Your task to perform on an android device: Open battery settings Image 0: 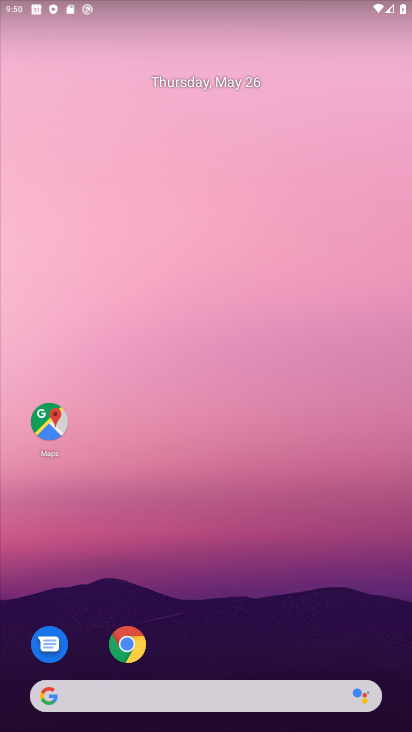
Step 0: drag from (321, 634) to (96, 75)
Your task to perform on an android device: Open battery settings Image 1: 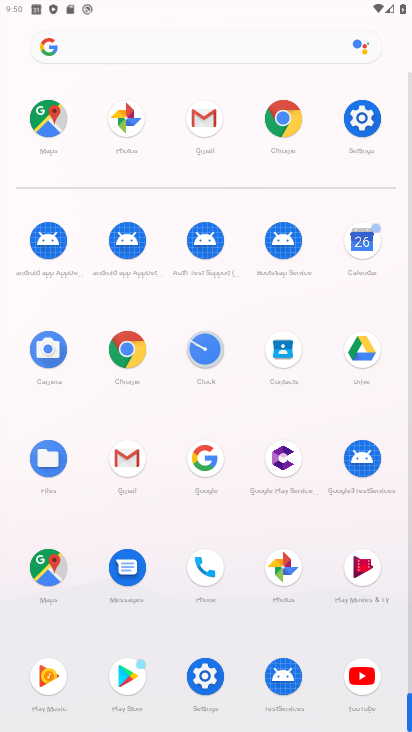
Step 1: click (353, 132)
Your task to perform on an android device: Open battery settings Image 2: 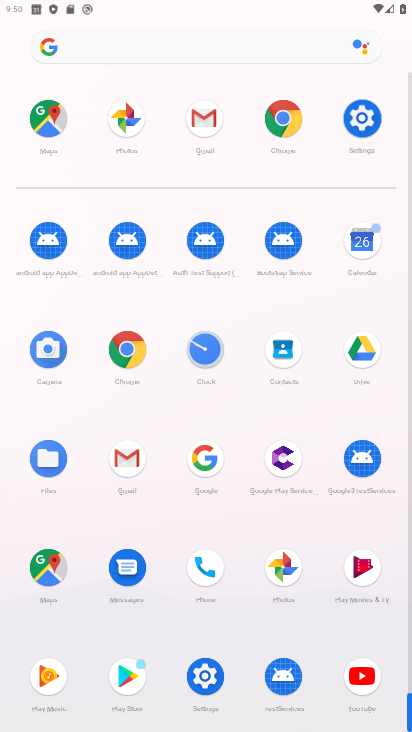
Step 2: click (353, 132)
Your task to perform on an android device: Open battery settings Image 3: 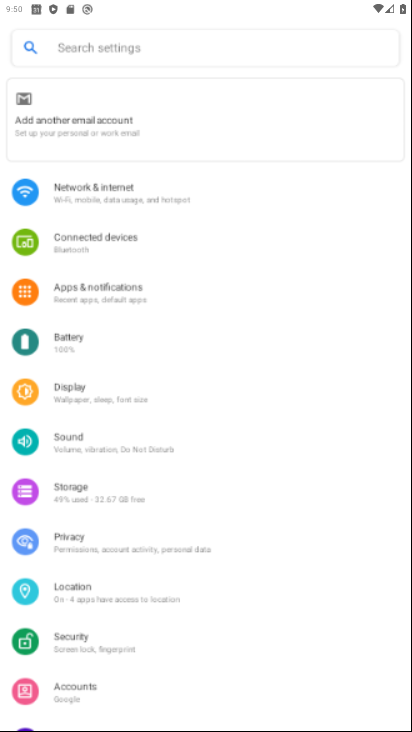
Step 3: click (355, 132)
Your task to perform on an android device: Open battery settings Image 4: 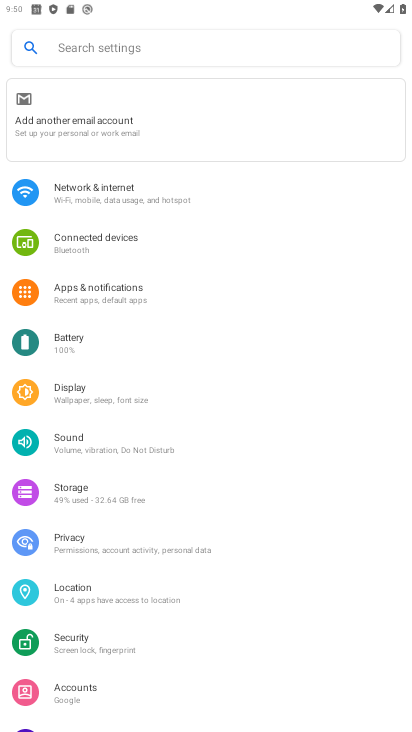
Step 4: click (56, 347)
Your task to perform on an android device: Open battery settings Image 5: 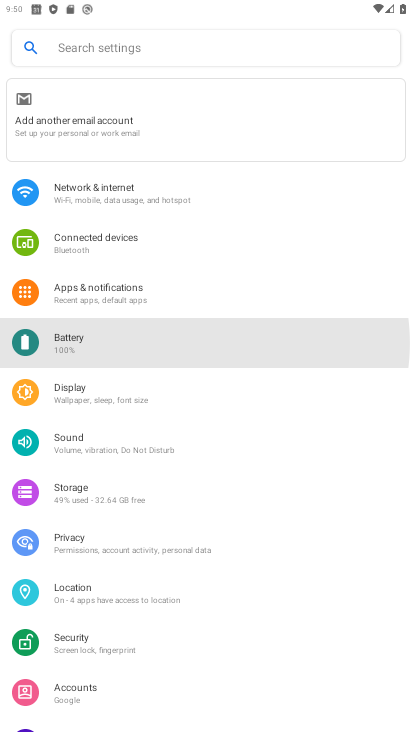
Step 5: click (56, 347)
Your task to perform on an android device: Open battery settings Image 6: 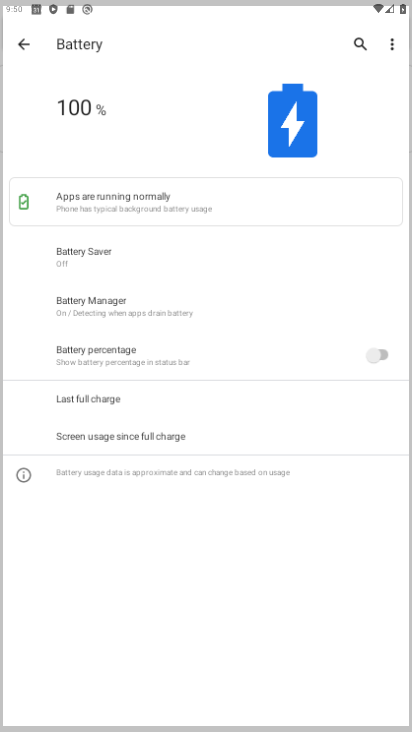
Step 6: click (63, 347)
Your task to perform on an android device: Open battery settings Image 7: 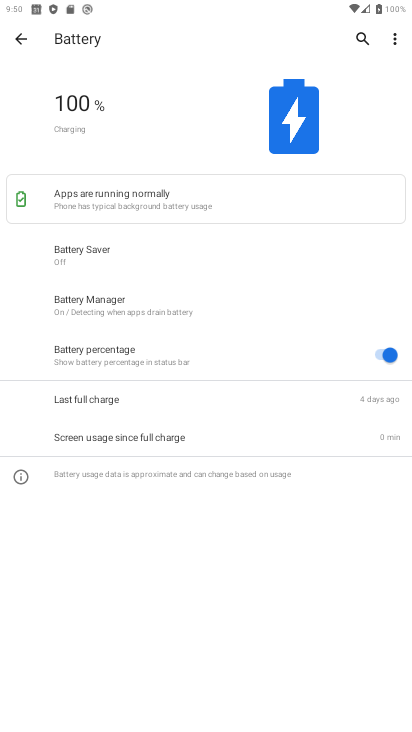
Step 7: task complete